Your task to perform on an android device: Search for pizza restaurants on Maps Image 0: 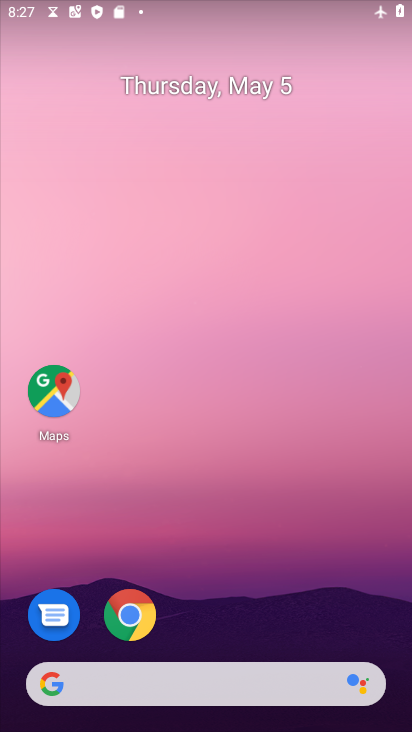
Step 0: click (63, 388)
Your task to perform on an android device: Search for pizza restaurants on Maps Image 1: 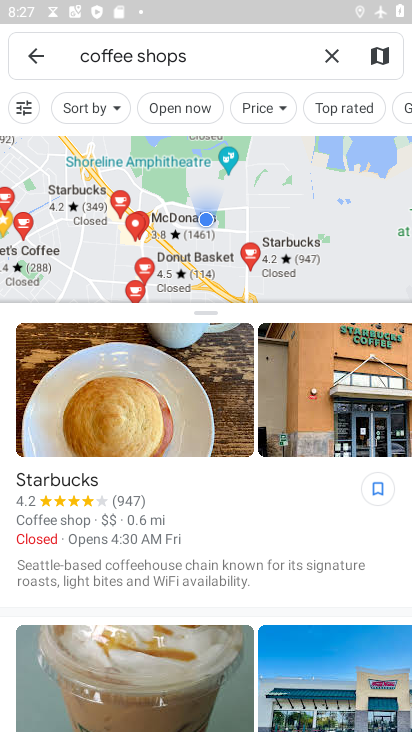
Step 1: click (333, 56)
Your task to perform on an android device: Search for pizza restaurants on Maps Image 2: 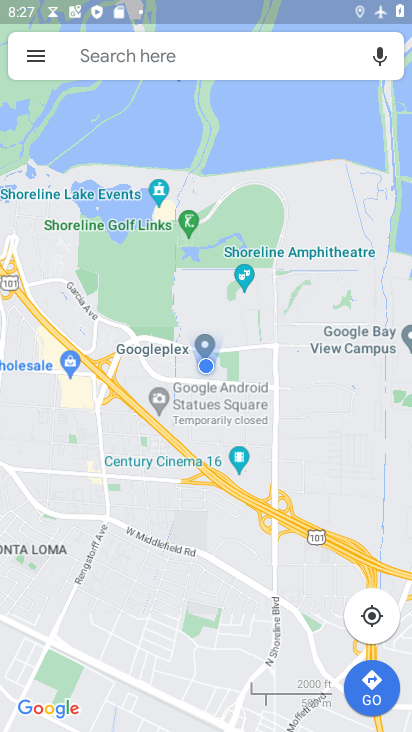
Step 2: click (204, 63)
Your task to perform on an android device: Search for pizza restaurants on Maps Image 3: 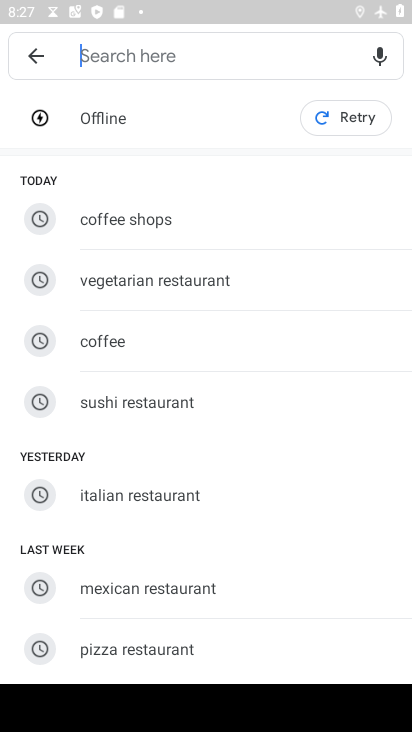
Step 3: type "Pizza restaurants"
Your task to perform on an android device: Search for pizza restaurants on Maps Image 4: 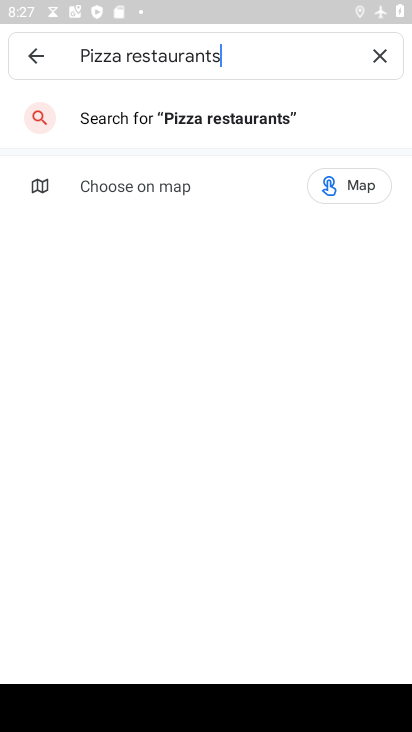
Step 4: click (242, 113)
Your task to perform on an android device: Search for pizza restaurants on Maps Image 5: 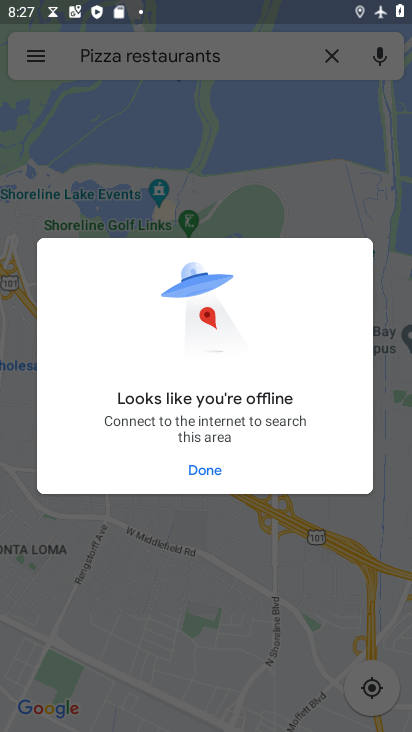
Step 5: click (201, 476)
Your task to perform on an android device: Search for pizza restaurants on Maps Image 6: 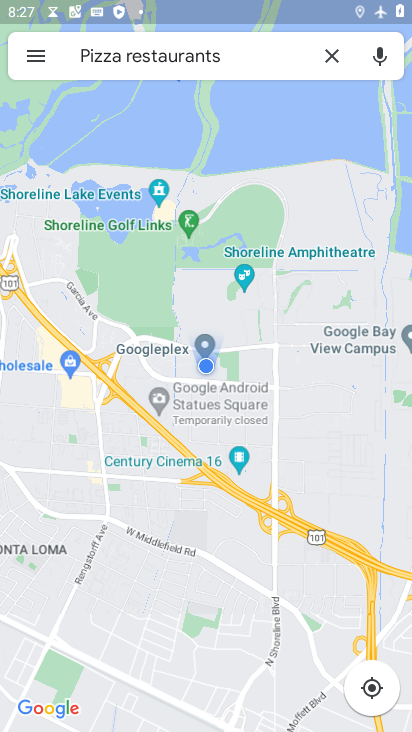
Step 6: task complete